Your task to perform on an android device: change the upload size in google photos Image 0: 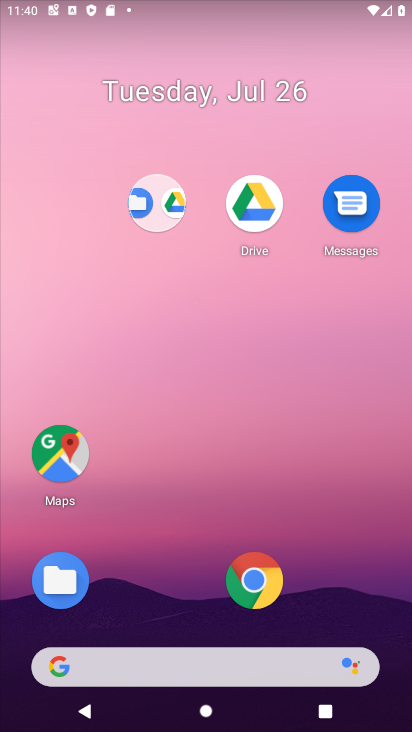
Step 0: drag from (220, 618) to (225, 58)
Your task to perform on an android device: change the upload size in google photos Image 1: 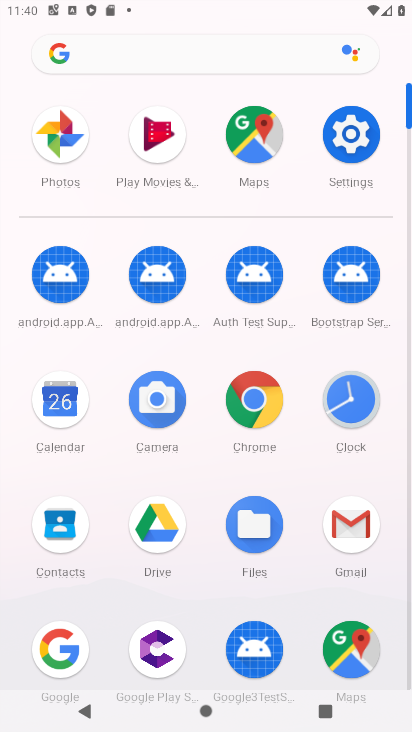
Step 1: click (60, 118)
Your task to perform on an android device: change the upload size in google photos Image 2: 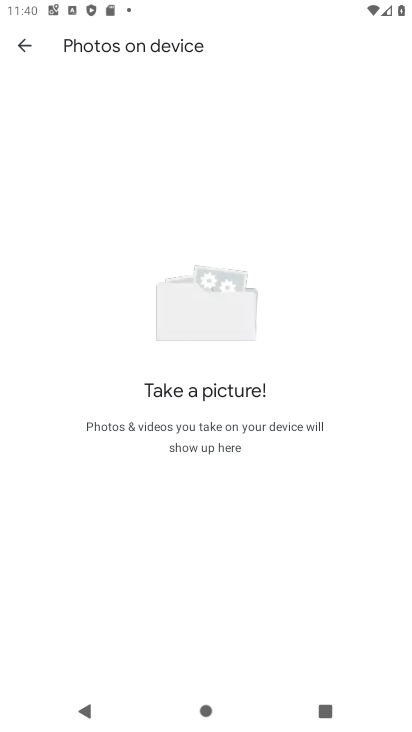
Step 2: click (23, 49)
Your task to perform on an android device: change the upload size in google photos Image 3: 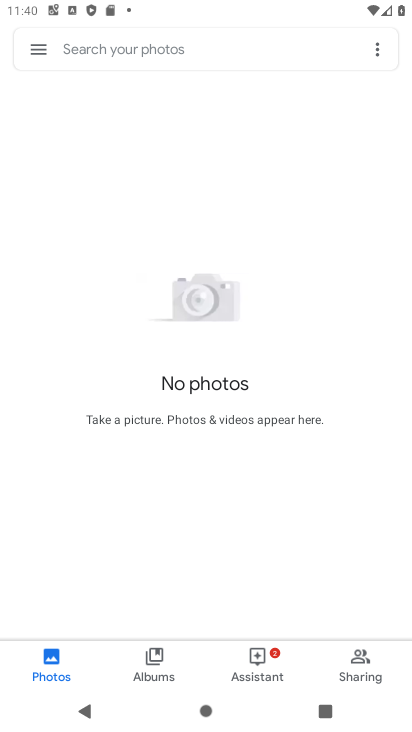
Step 3: click (24, 31)
Your task to perform on an android device: change the upload size in google photos Image 4: 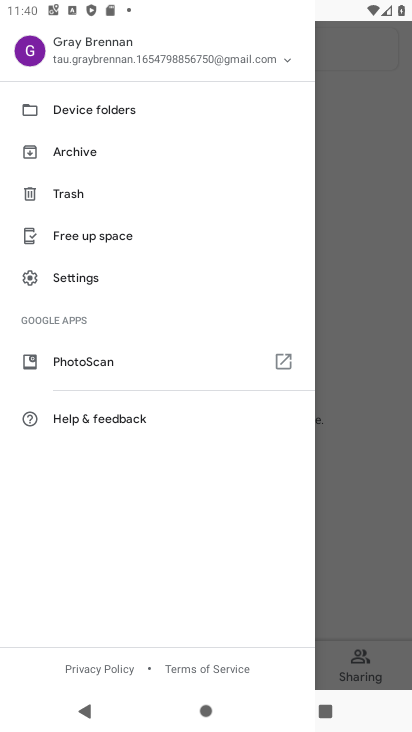
Step 4: click (112, 299)
Your task to perform on an android device: change the upload size in google photos Image 5: 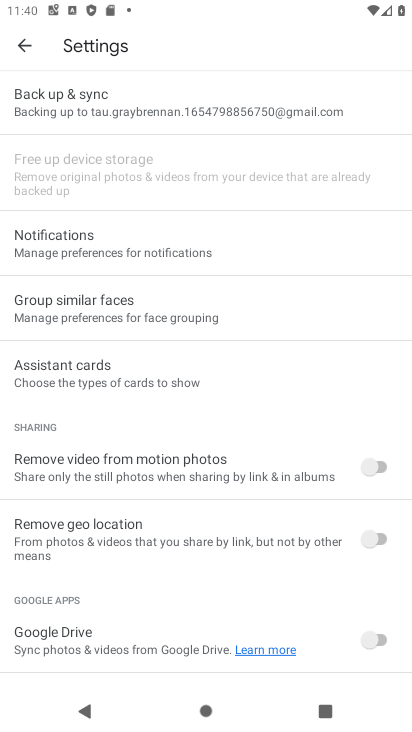
Step 5: click (159, 95)
Your task to perform on an android device: change the upload size in google photos Image 6: 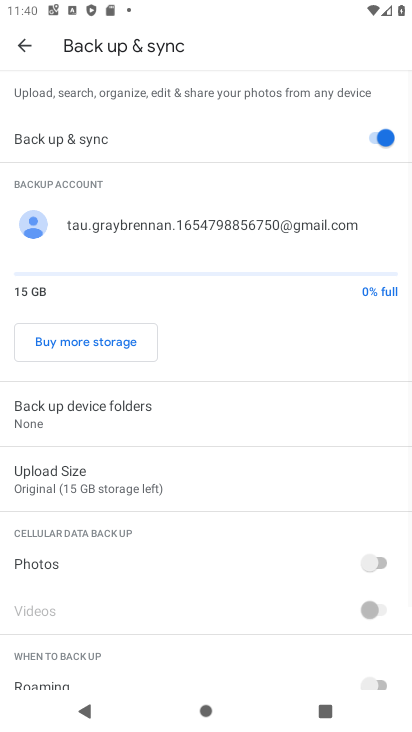
Step 6: click (187, 488)
Your task to perform on an android device: change the upload size in google photos Image 7: 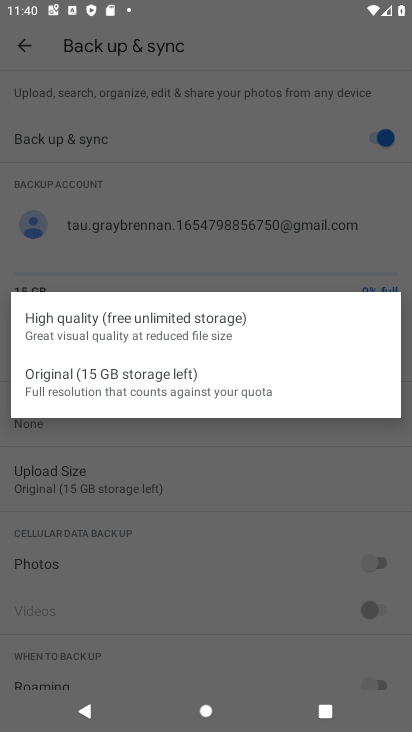
Step 7: click (118, 334)
Your task to perform on an android device: change the upload size in google photos Image 8: 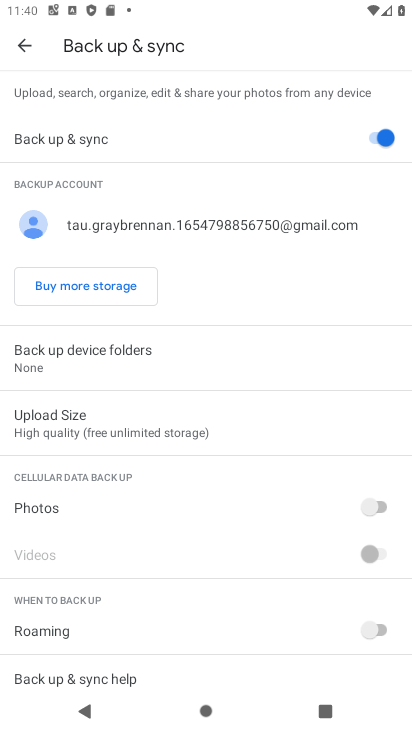
Step 8: task complete